Your task to perform on an android device: toggle priority inbox in the gmail app Image 0: 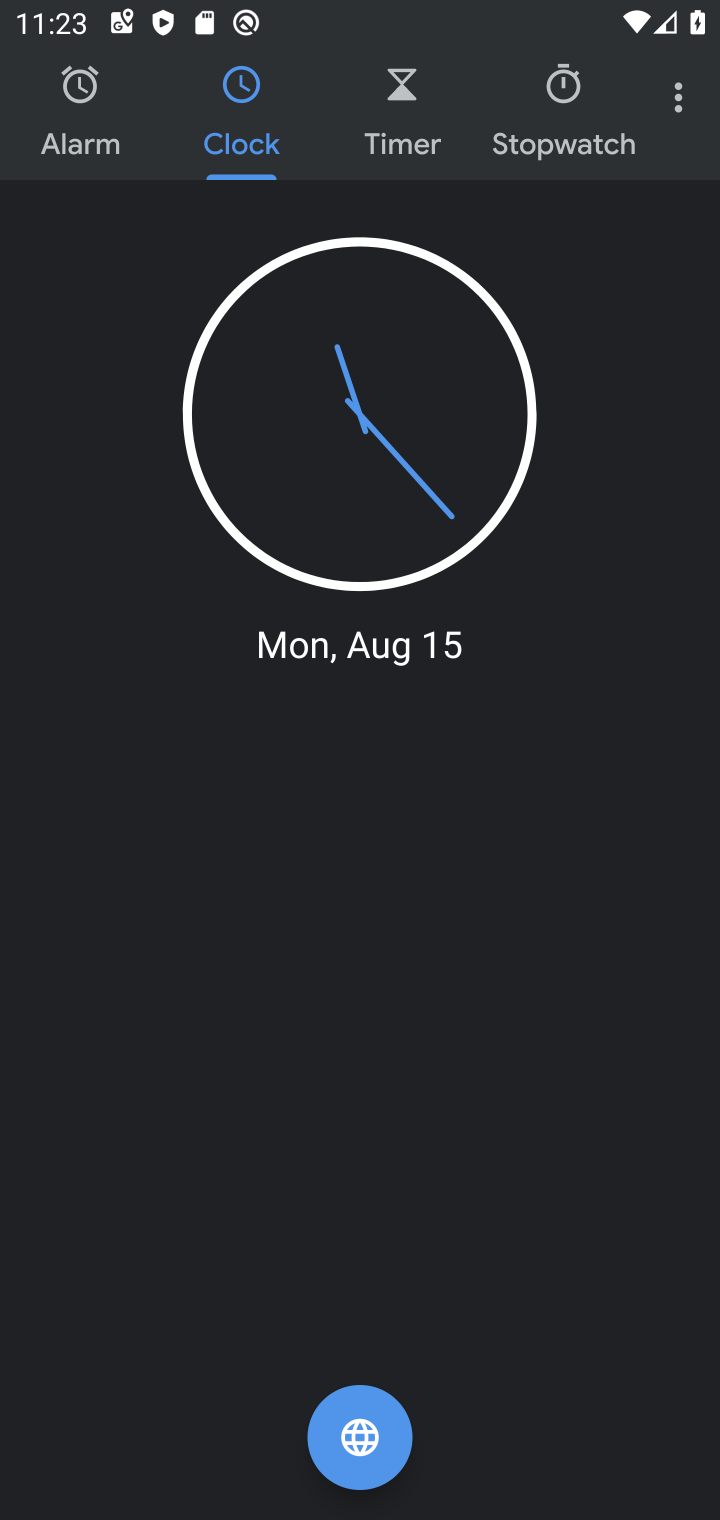
Step 0: press home button
Your task to perform on an android device: toggle priority inbox in the gmail app Image 1: 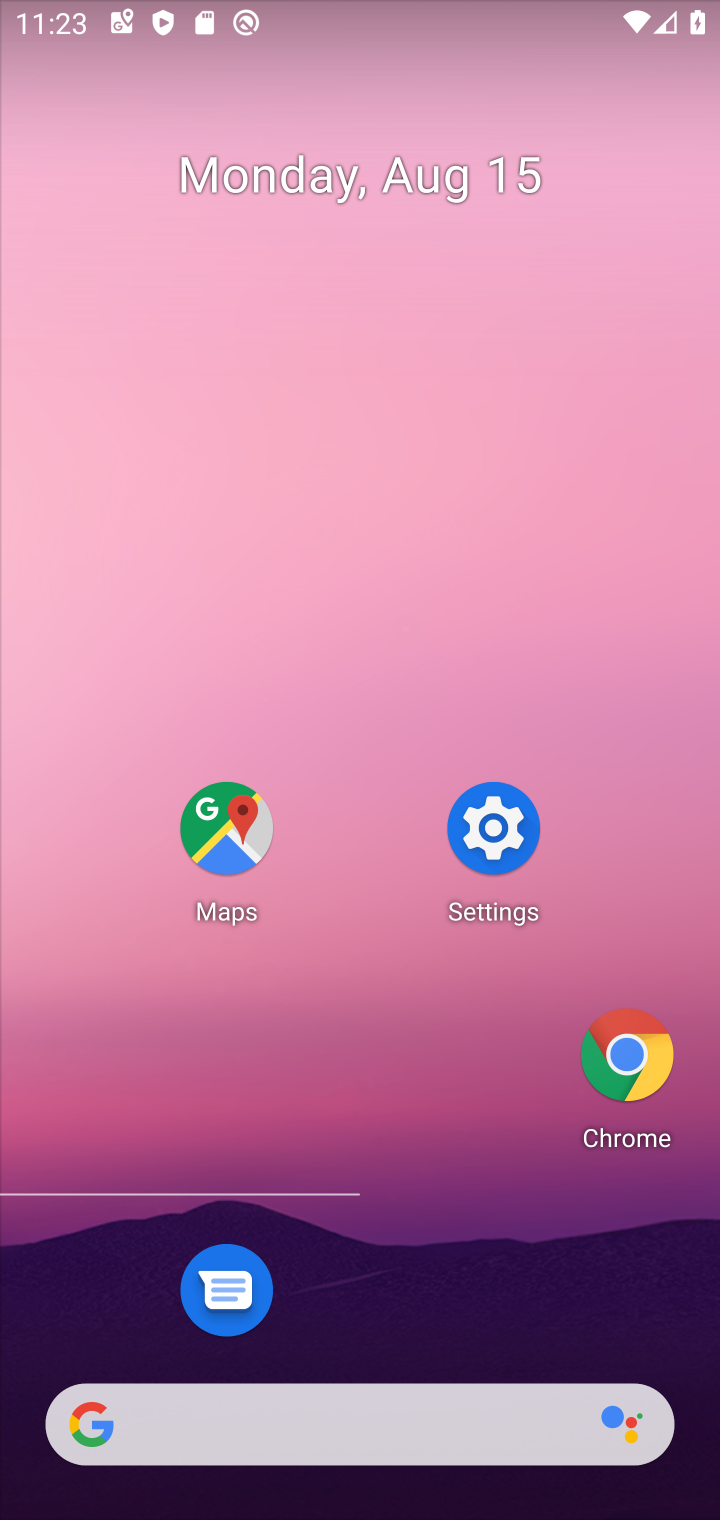
Step 1: drag from (330, 1383) to (549, 134)
Your task to perform on an android device: toggle priority inbox in the gmail app Image 2: 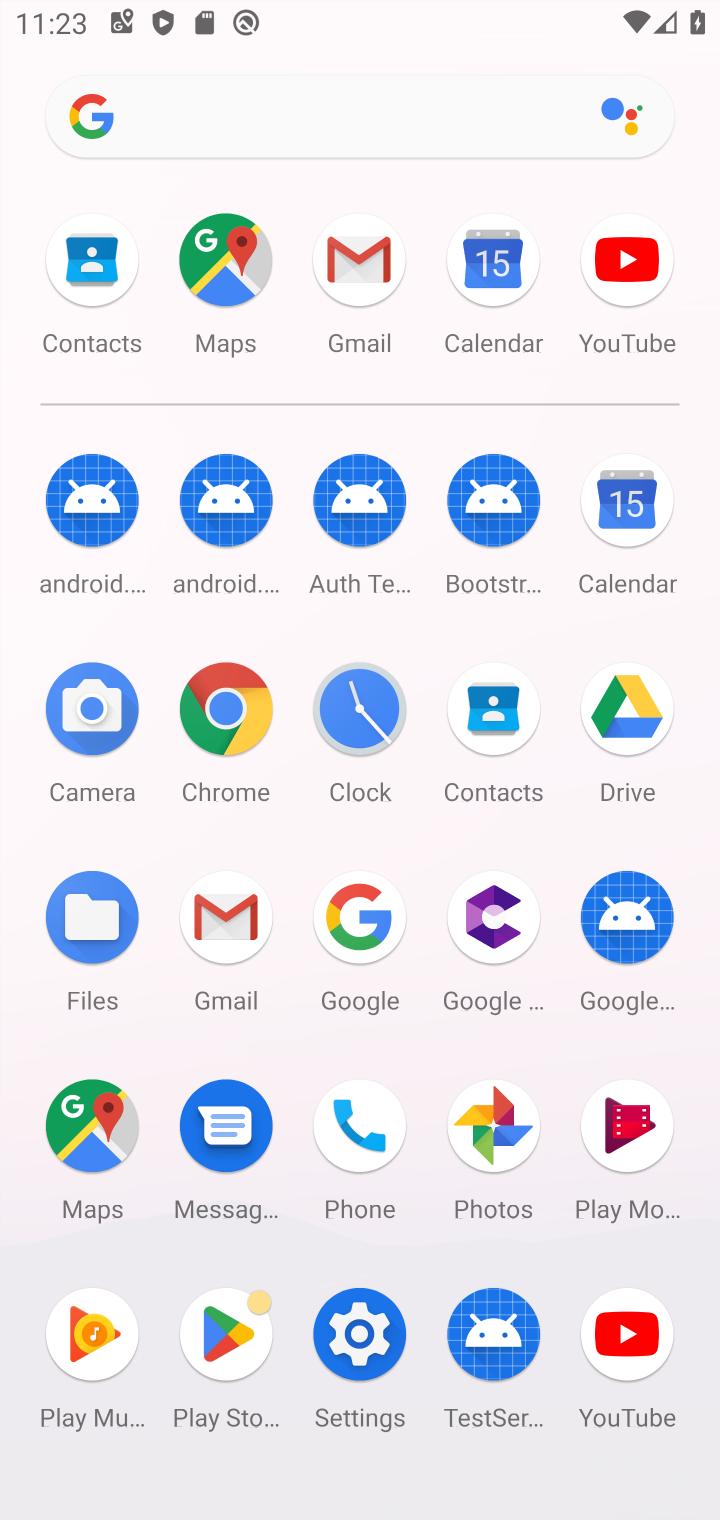
Step 2: click (350, 251)
Your task to perform on an android device: toggle priority inbox in the gmail app Image 3: 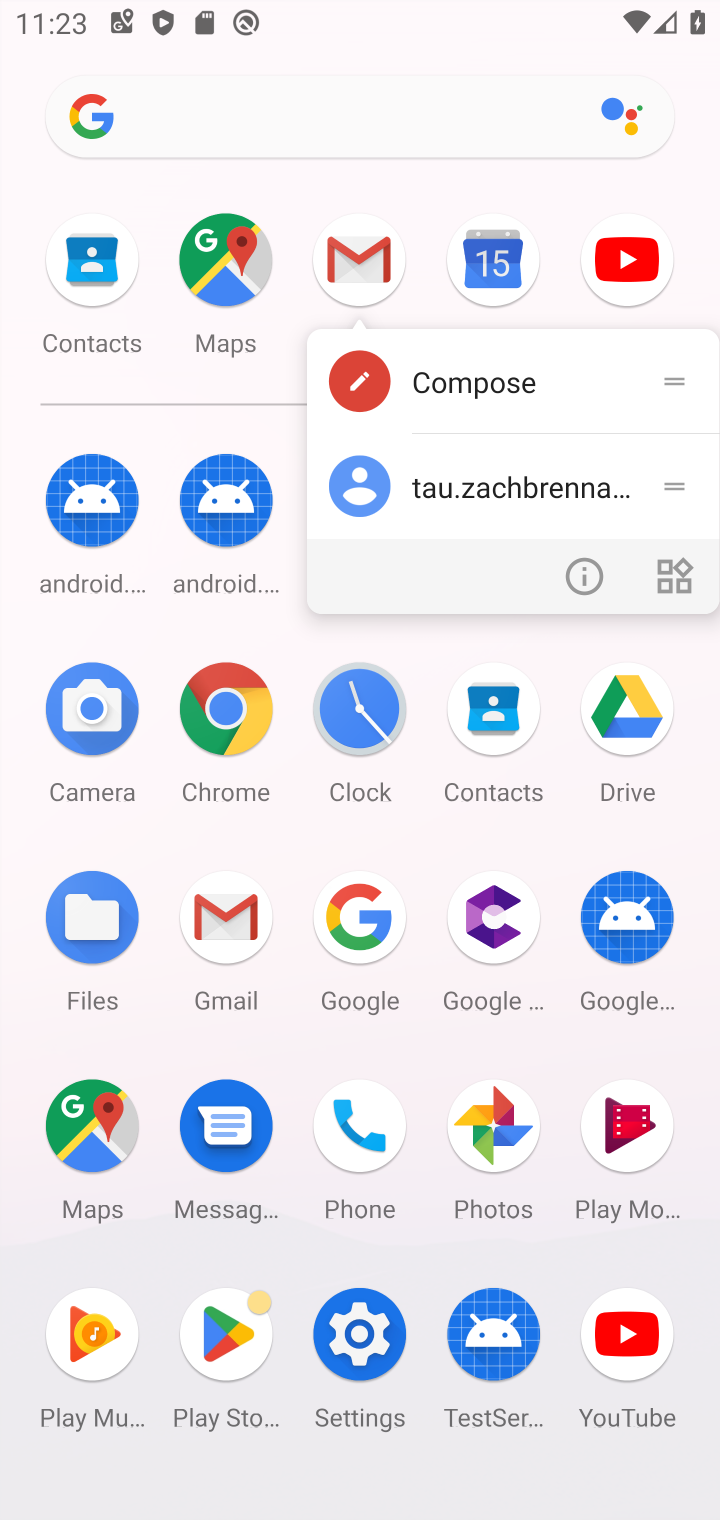
Step 3: click (350, 254)
Your task to perform on an android device: toggle priority inbox in the gmail app Image 4: 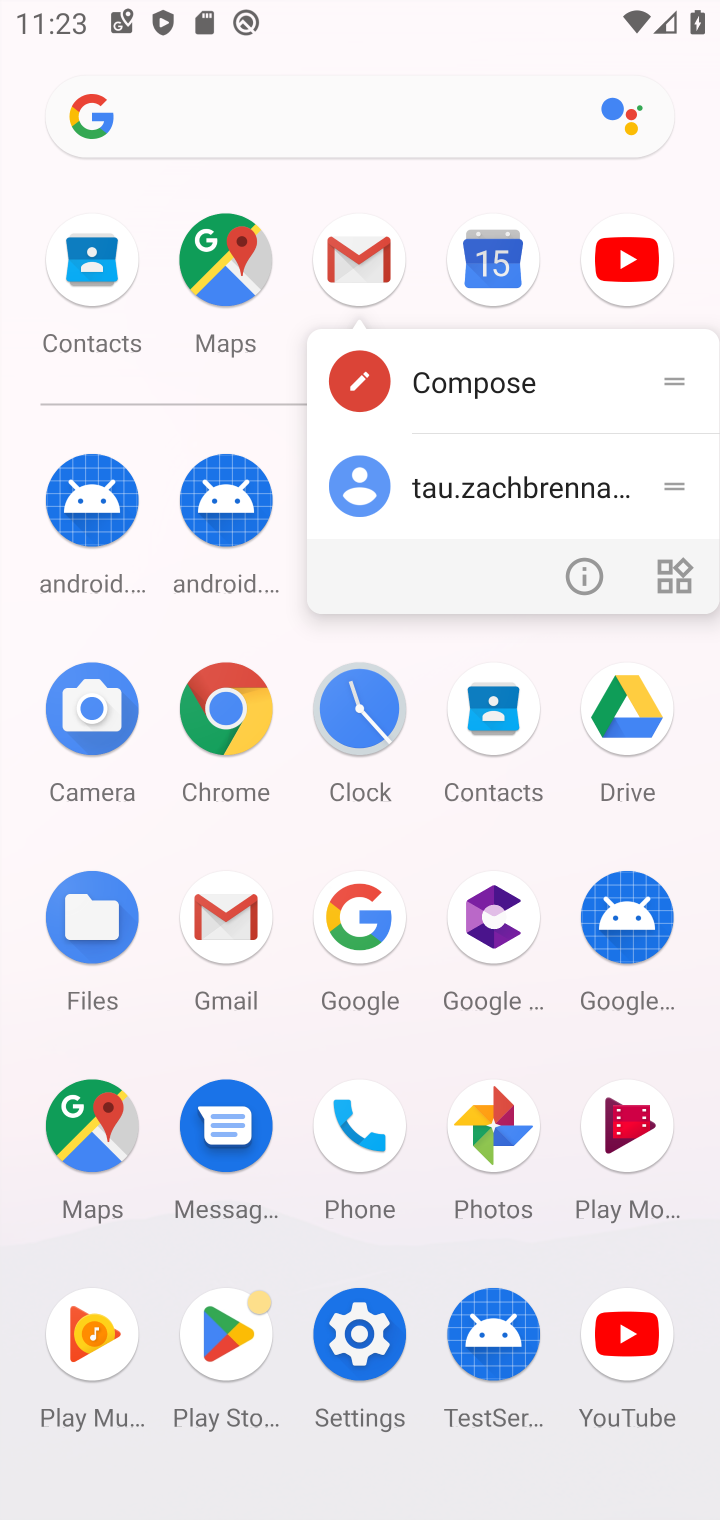
Step 4: click (356, 266)
Your task to perform on an android device: toggle priority inbox in the gmail app Image 5: 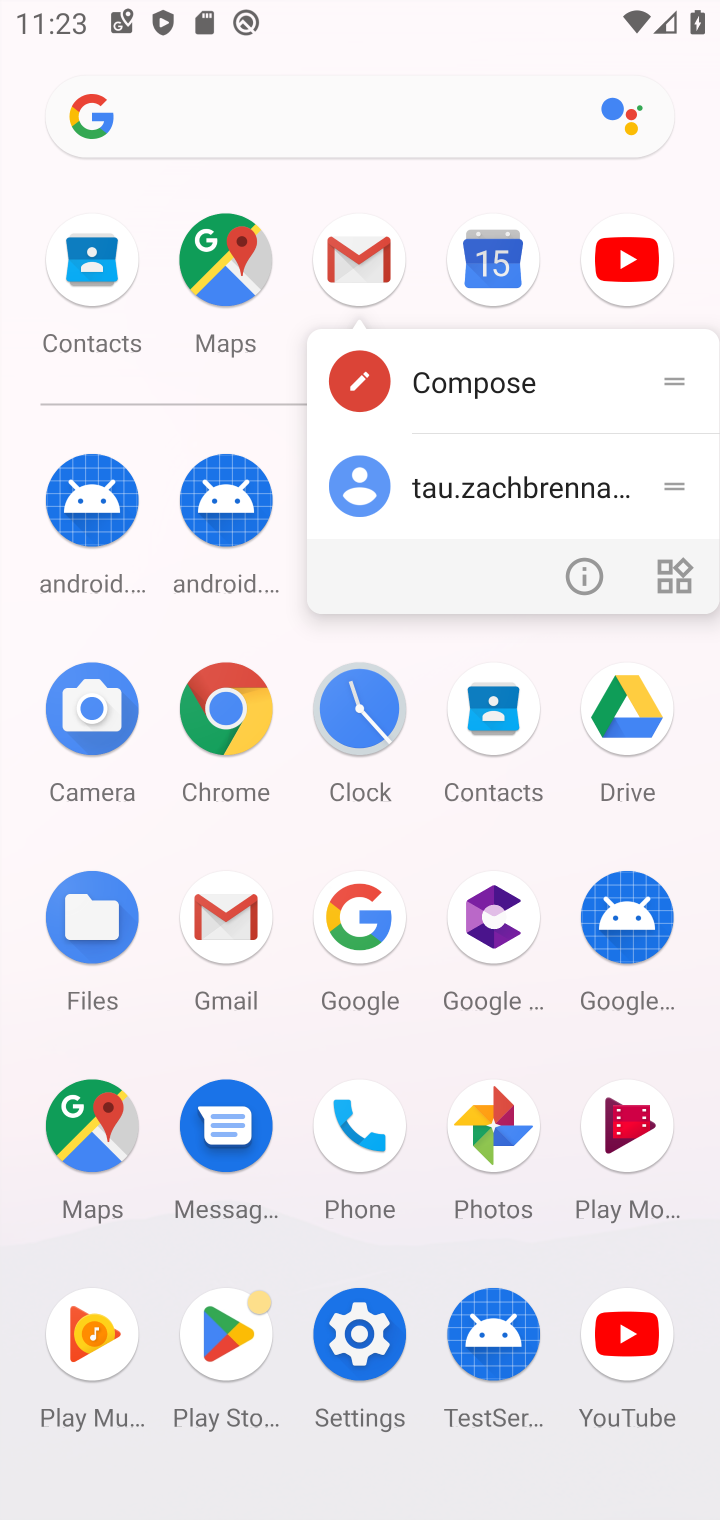
Step 5: click (356, 269)
Your task to perform on an android device: toggle priority inbox in the gmail app Image 6: 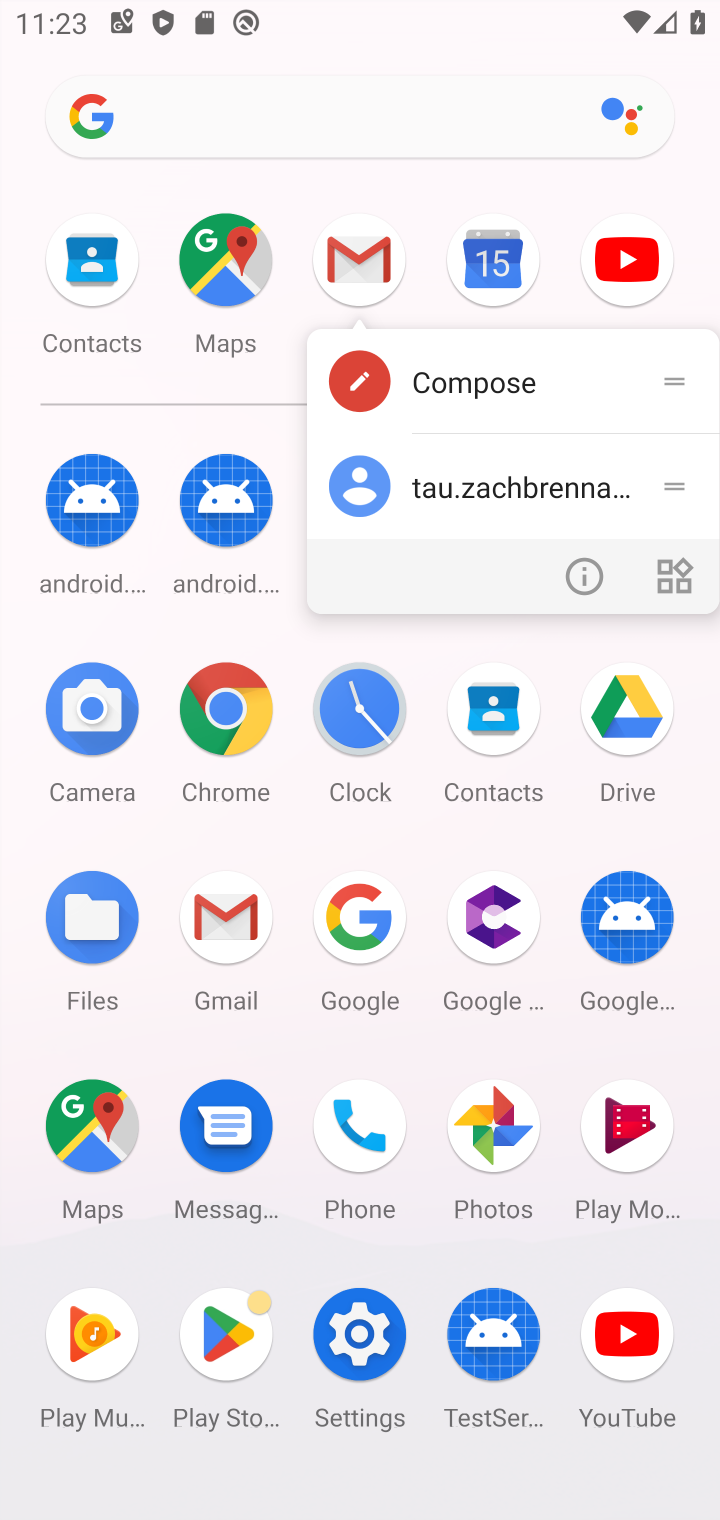
Step 6: click (356, 273)
Your task to perform on an android device: toggle priority inbox in the gmail app Image 7: 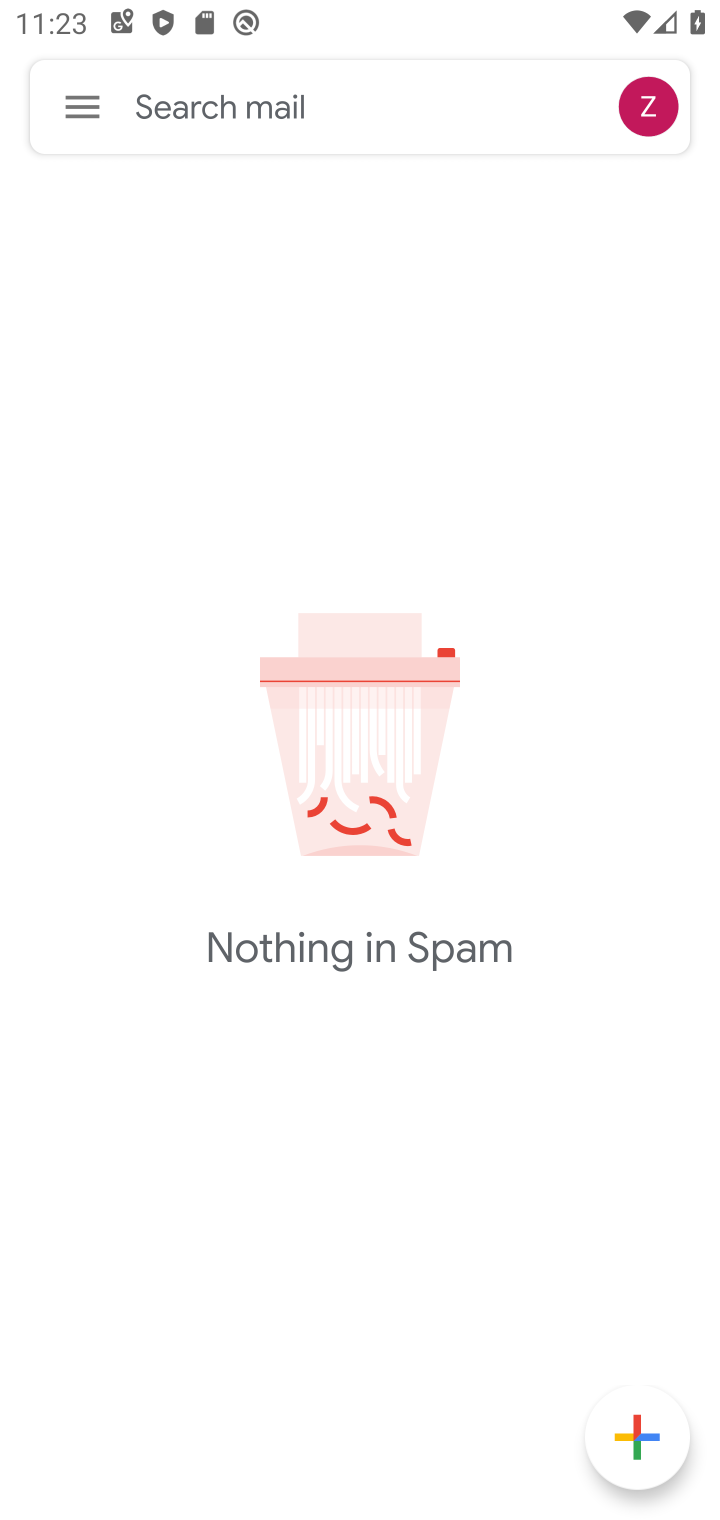
Step 7: click (57, 102)
Your task to perform on an android device: toggle priority inbox in the gmail app Image 8: 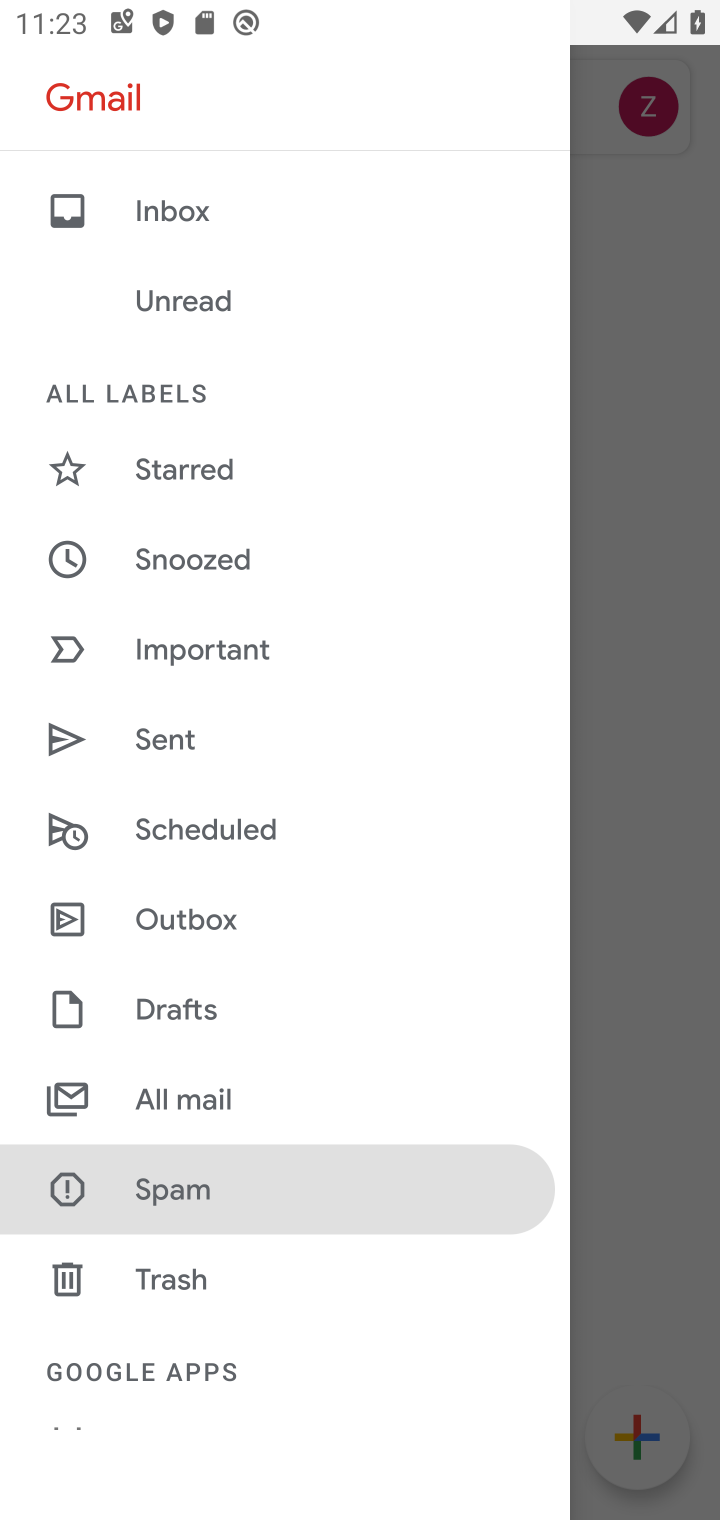
Step 8: drag from (325, 1299) to (411, 133)
Your task to perform on an android device: toggle priority inbox in the gmail app Image 9: 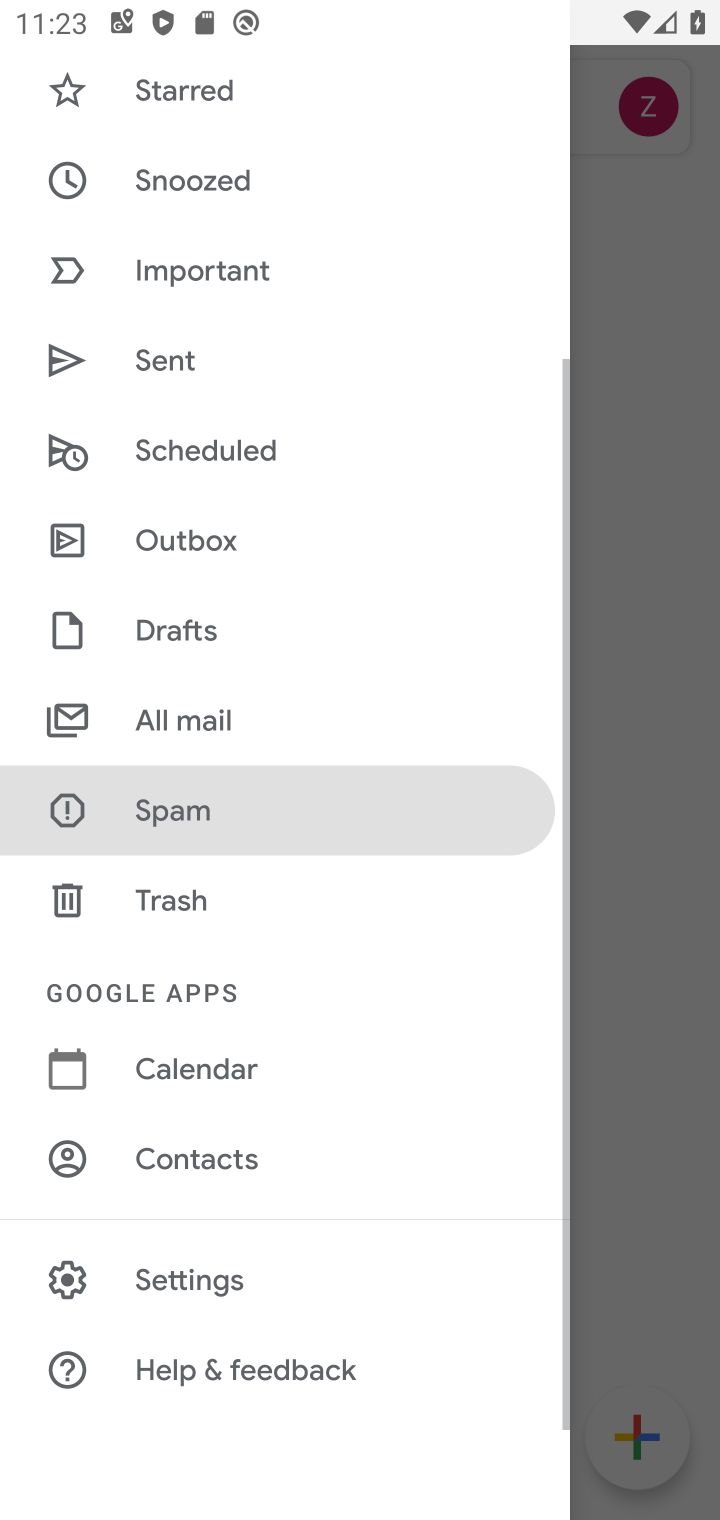
Step 9: click (180, 1266)
Your task to perform on an android device: toggle priority inbox in the gmail app Image 10: 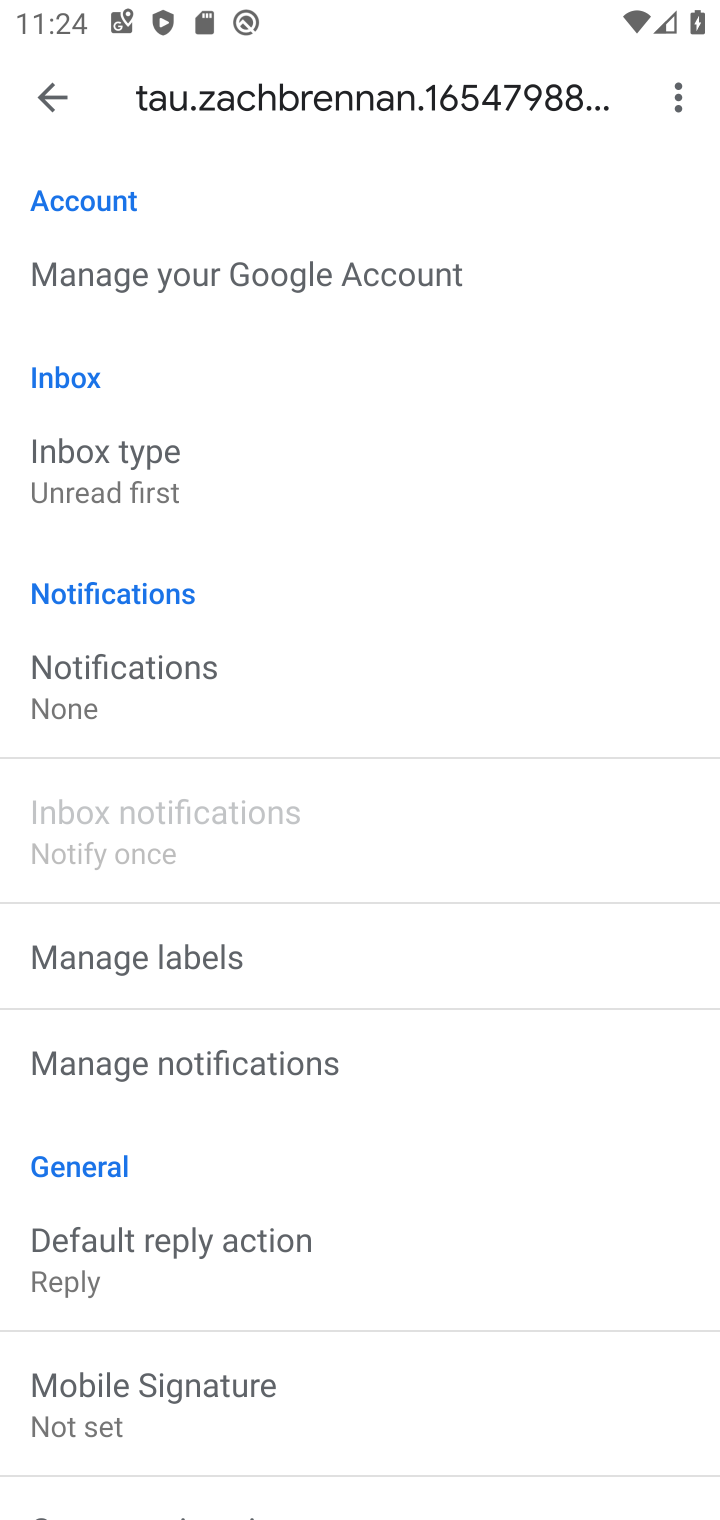
Step 10: click (131, 477)
Your task to perform on an android device: toggle priority inbox in the gmail app Image 11: 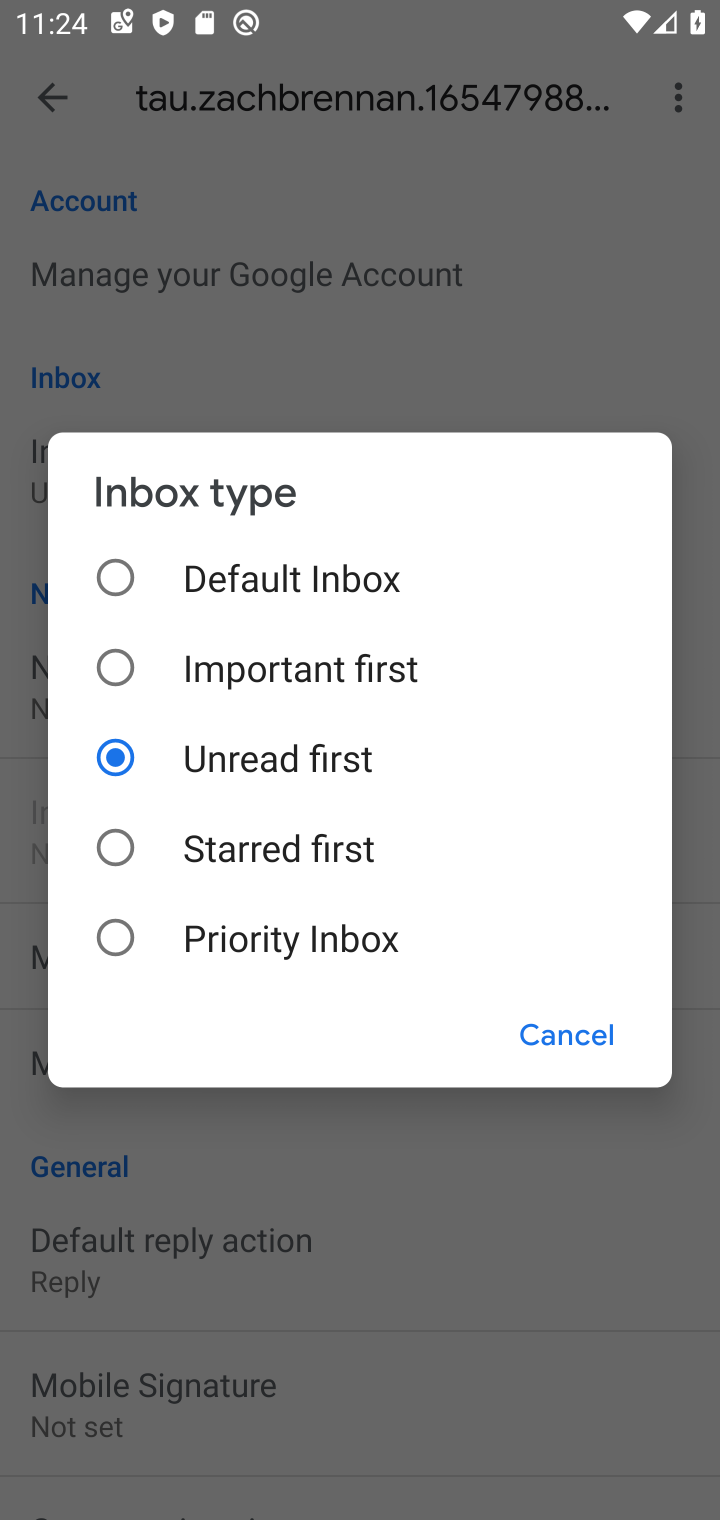
Step 11: click (107, 942)
Your task to perform on an android device: toggle priority inbox in the gmail app Image 12: 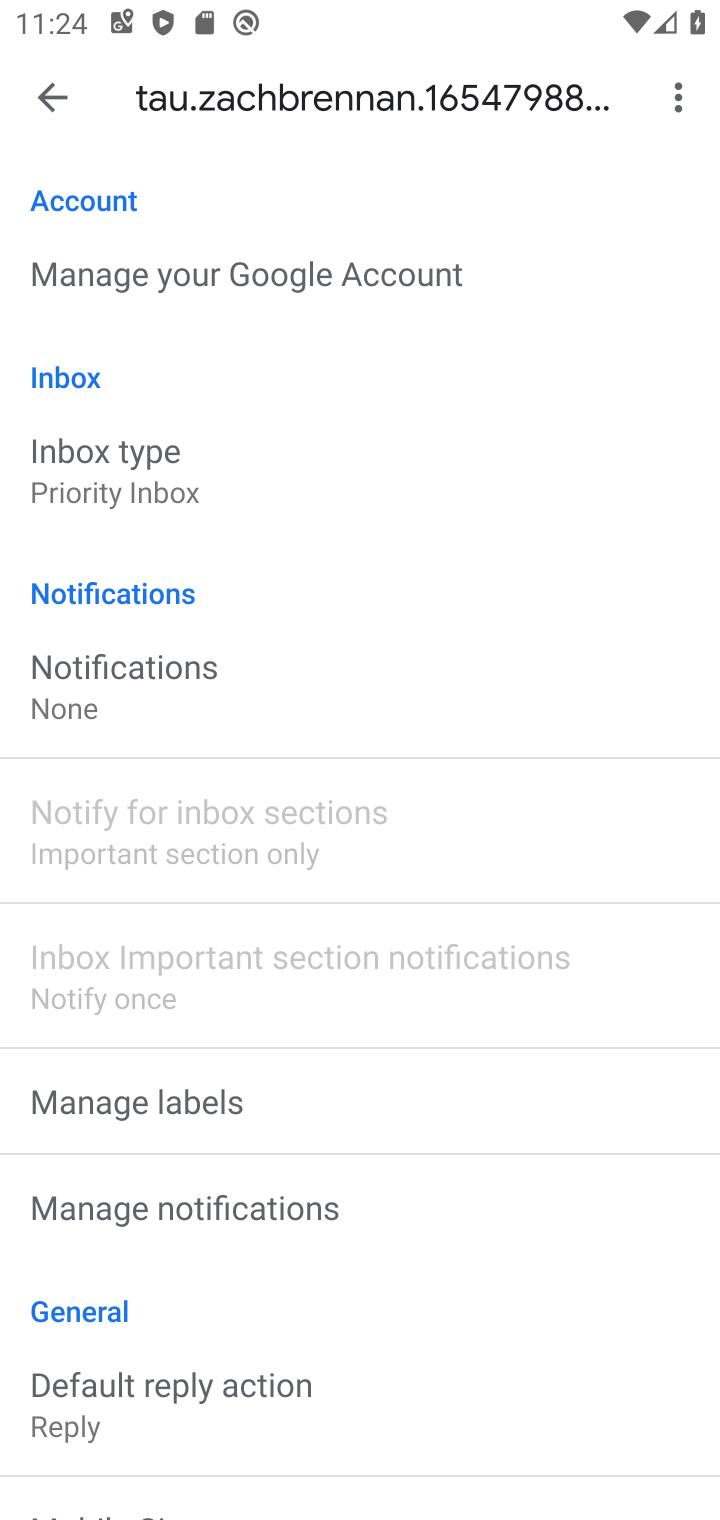
Step 12: task complete